Your task to perform on an android device: open chrome privacy settings Image 0: 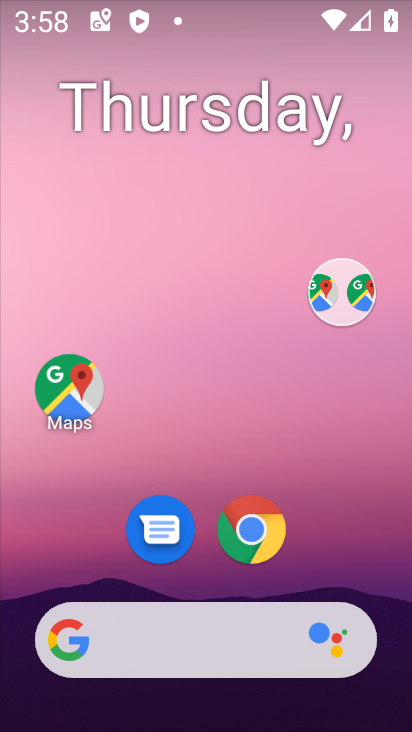
Step 0: click (399, 587)
Your task to perform on an android device: open chrome privacy settings Image 1: 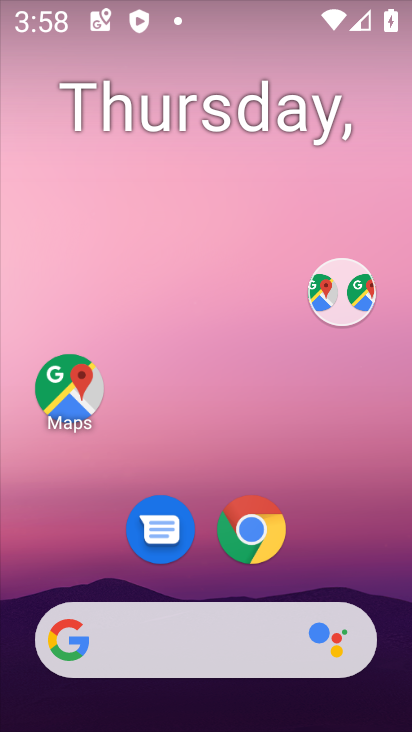
Step 1: click (243, 541)
Your task to perform on an android device: open chrome privacy settings Image 2: 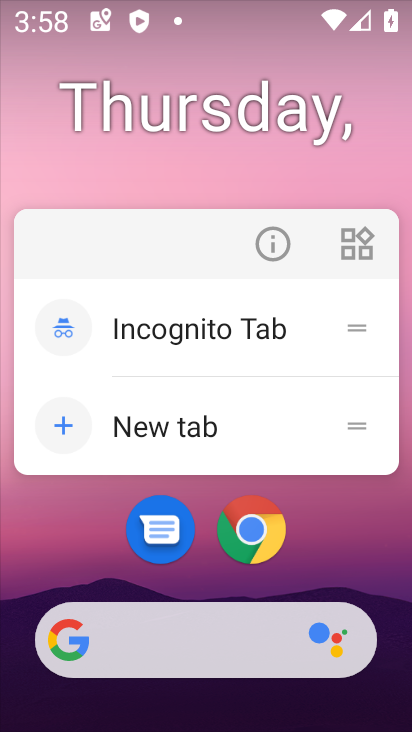
Step 2: click (243, 541)
Your task to perform on an android device: open chrome privacy settings Image 3: 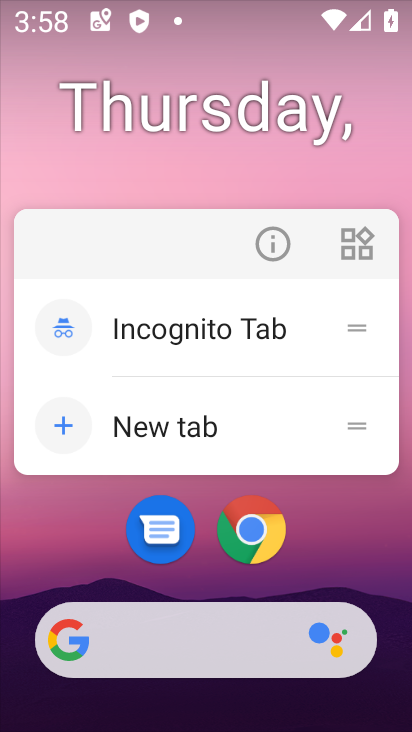
Step 3: click (243, 541)
Your task to perform on an android device: open chrome privacy settings Image 4: 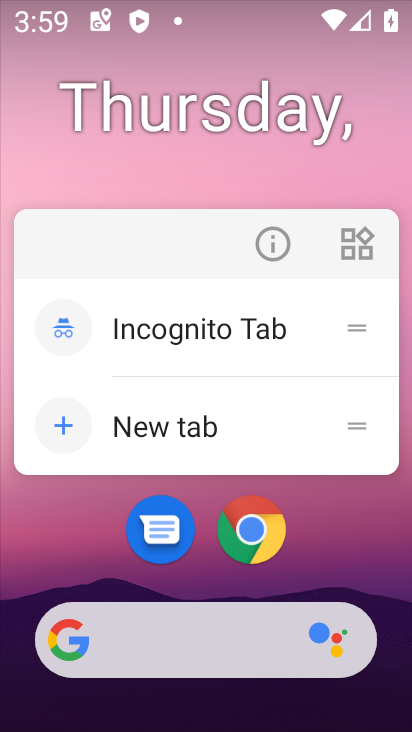
Step 4: click (243, 541)
Your task to perform on an android device: open chrome privacy settings Image 5: 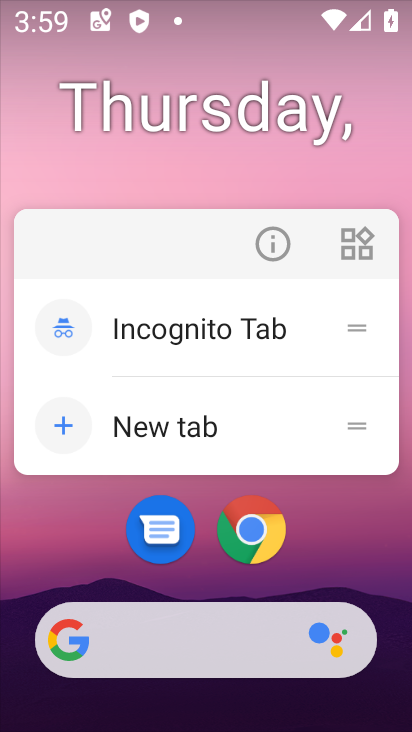
Step 5: click (243, 541)
Your task to perform on an android device: open chrome privacy settings Image 6: 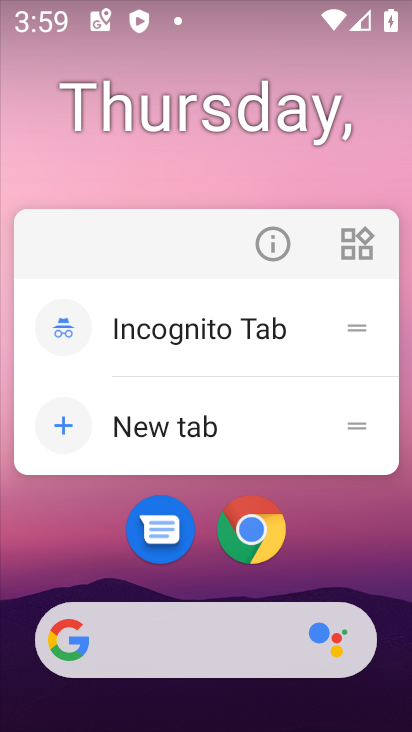
Step 6: click (243, 541)
Your task to perform on an android device: open chrome privacy settings Image 7: 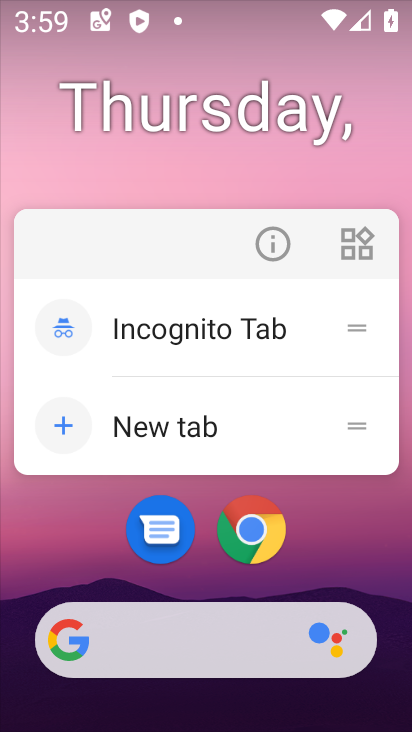
Step 7: click (243, 541)
Your task to perform on an android device: open chrome privacy settings Image 8: 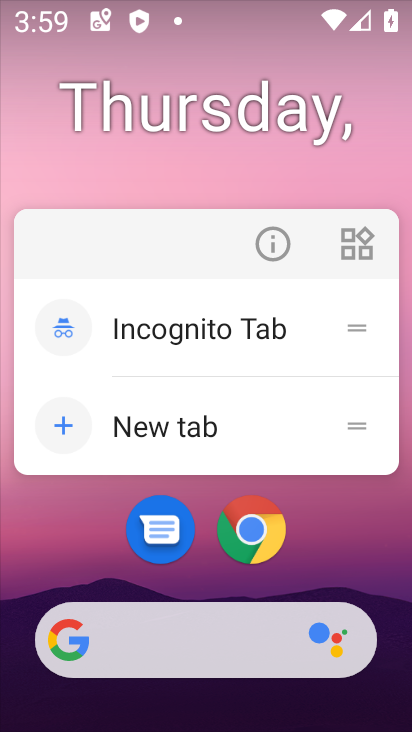
Step 8: click (245, 542)
Your task to perform on an android device: open chrome privacy settings Image 9: 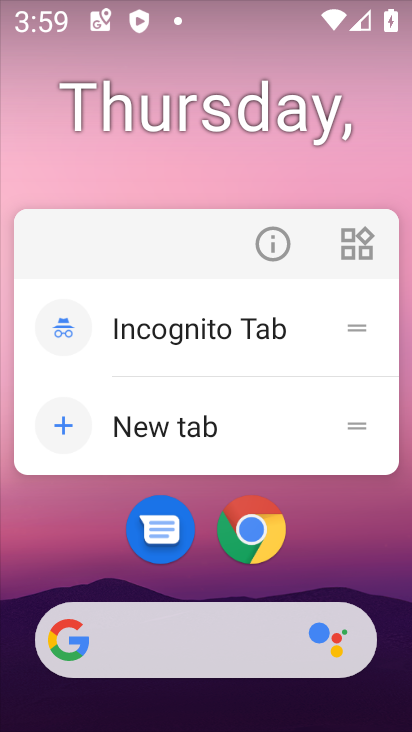
Step 9: click (245, 542)
Your task to perform on an android device: open chrome privacy settings Image 10: 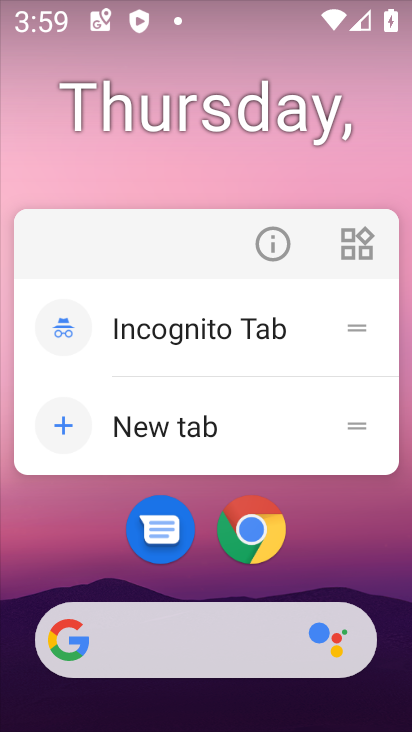
Step 10: click (245, 542)
Your task to perform on an android device: open chrome privacy settings Image 11: 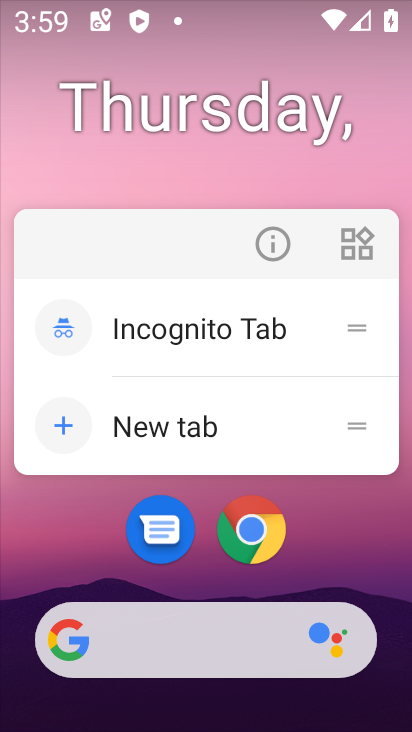
Step 11: click (245, 542)
Your task to perform on an android device: open chrome privacy settings Image 12: 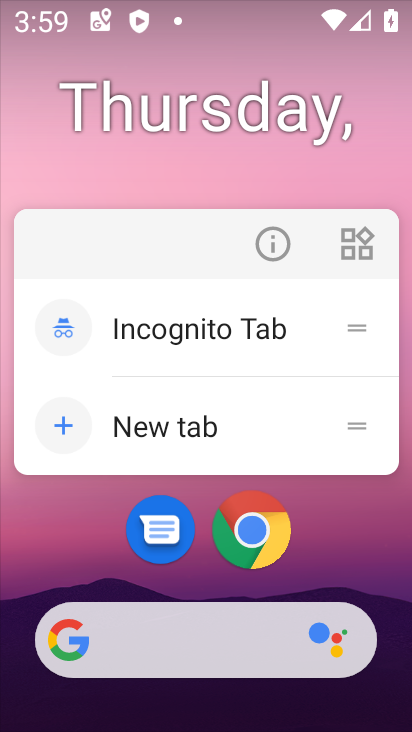
Step 12: click (245, 542)
Your task to perform on an android device: open chrome privacy settings Image 13: 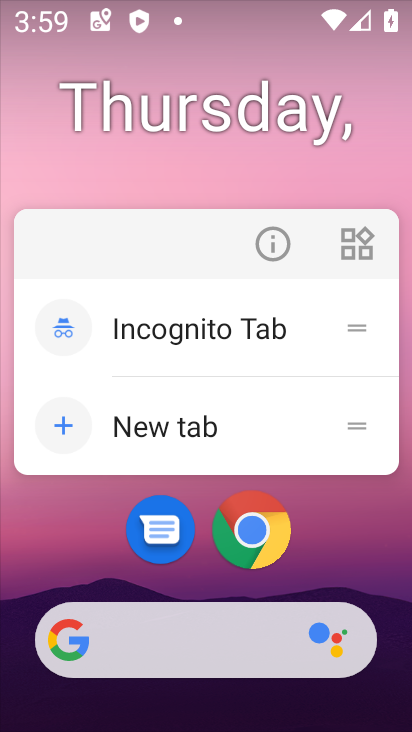
Step 13: click (245, 542)
Your task to perform on an android device: open chrome privacy settings Image 14: 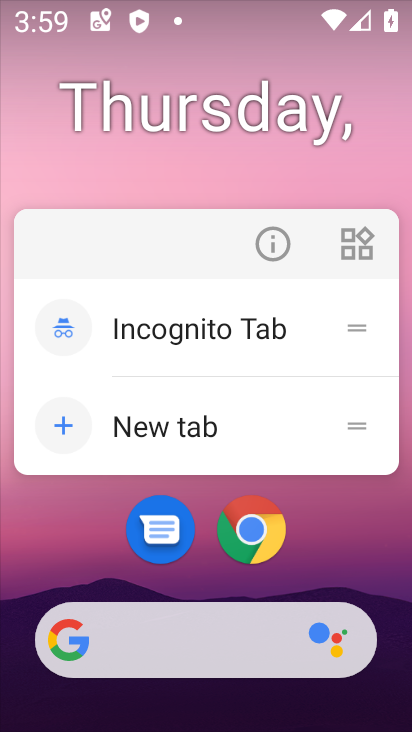
Step 14: click (244, 540)
Your task to perform on an android device: open chrome privacy settings Image 15: 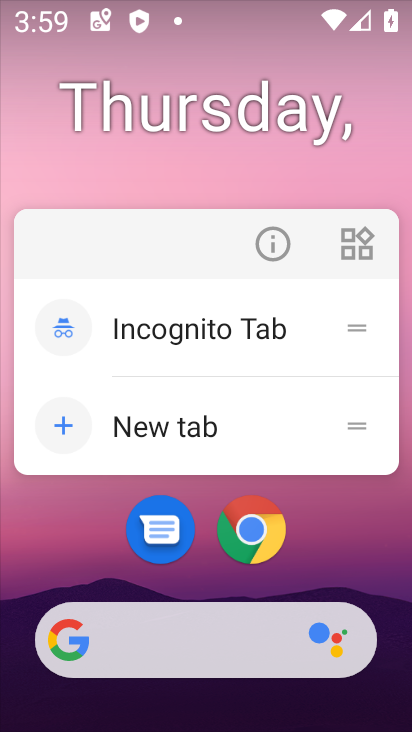
Step 15: click (244, 540)
Your task to perform on an android device: open chrome privacy settings Image 16: 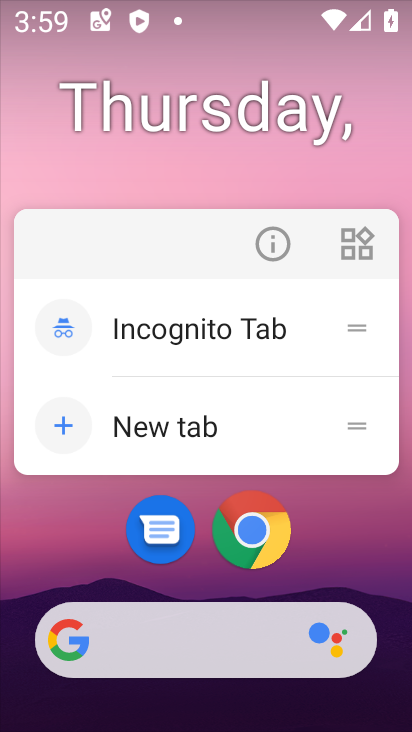
Step 16: click (244, 540)
Your task to perform on an android device: open chrome privacy settings Image 17: 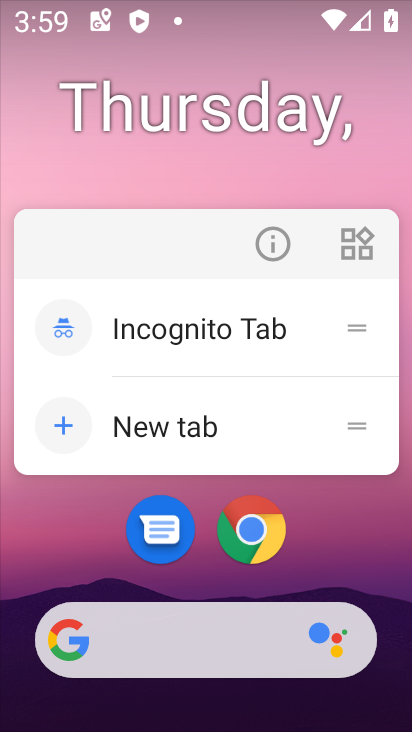
Step 17: click (244, 540)
Your task to perform on an android device: open chrome privacy settings Image 18: 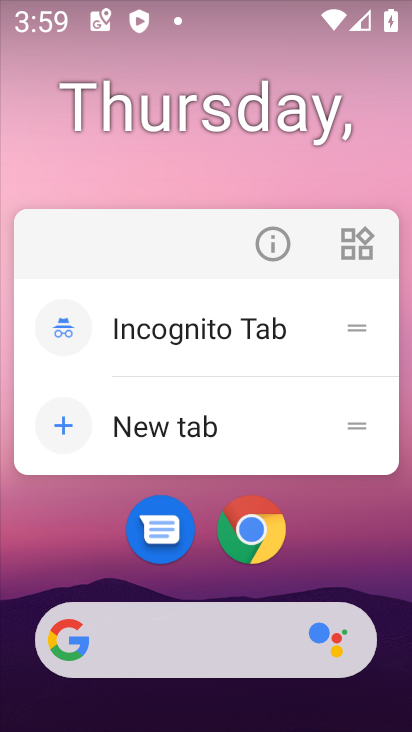
Step 18: click (244, 540)
Your task to perform on an android device: open chrome privacy settings Image 19: 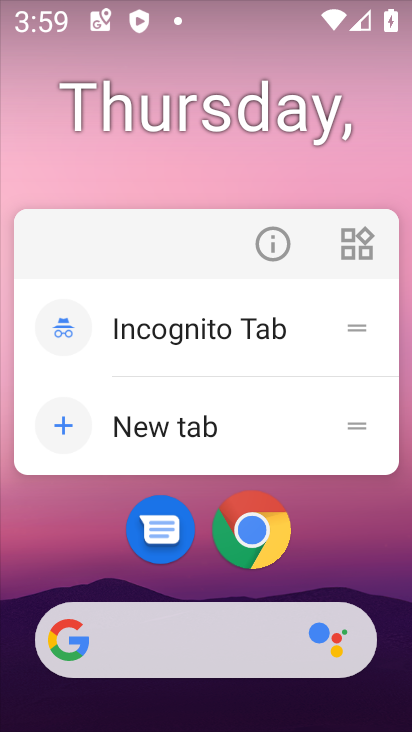
Step 19: click (244, 540)
Your task to perform on an android device: open chrome privacy settings Image 20: 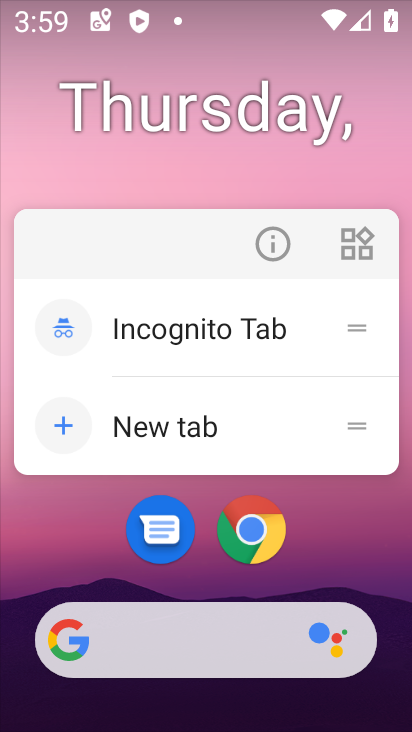
Step 20: click (244, 540)
Your task to perform on an android device: open chrome privacy settings Image 21: 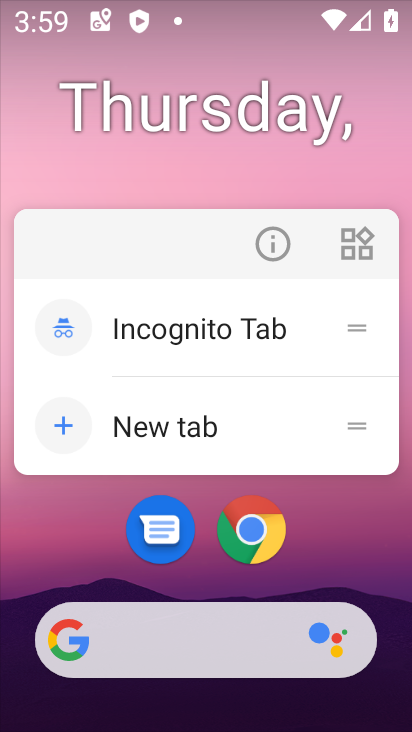
Step 21: click (244, 540)
Your task to perform on an android device: open chrome privacy settings Image 22: 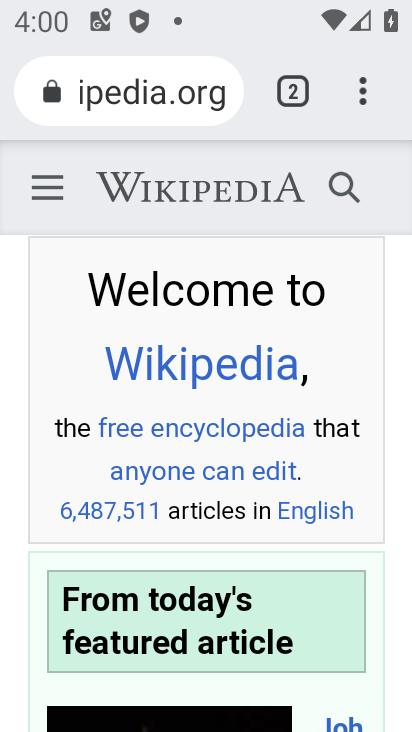
Step 22: click (366, 95)
Your task to perform on an android device: open chrome privacy settings Image 23: 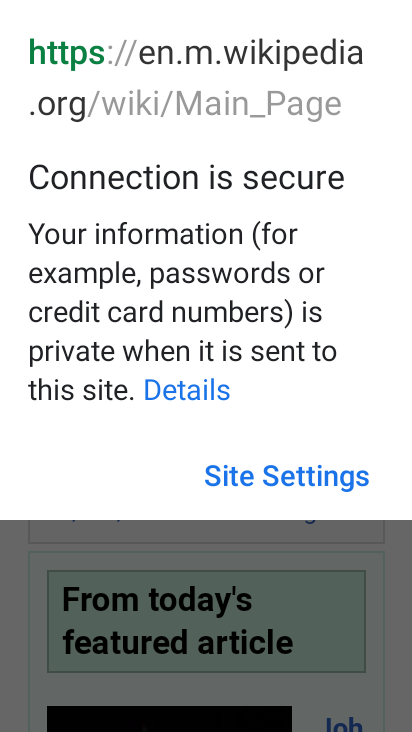
Step 23: click (269, 535)
Your task to perform on an android device: open chrome privacy settings Image 24: 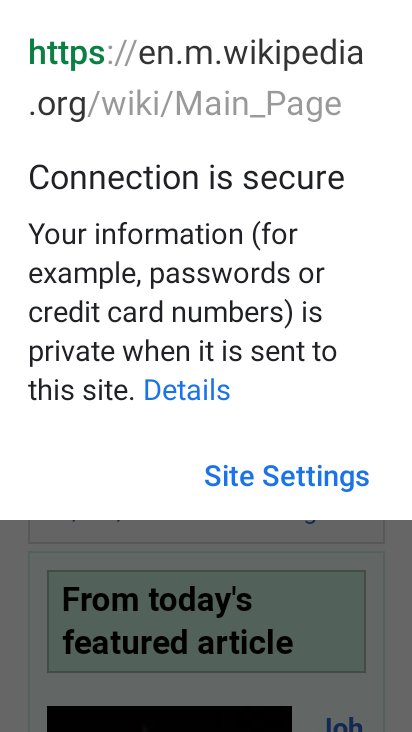
Step 24: click (269, 535)
Your task to perform on an android device: open chrome privacy settings Image 25: 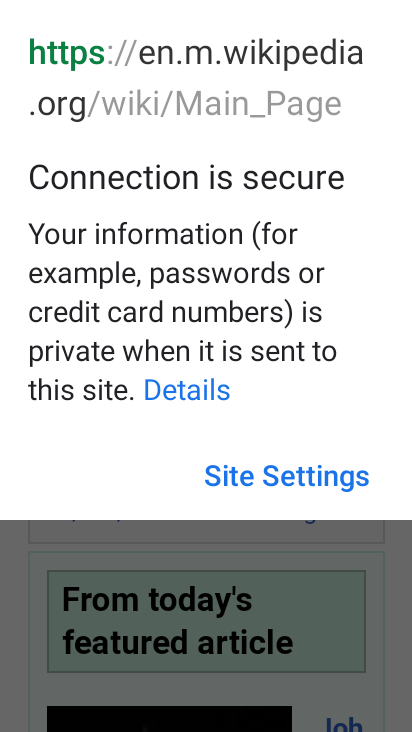
Step 25: click (336, 563)
Your task to perform on an android device: open chrome privacy settings Image 26: 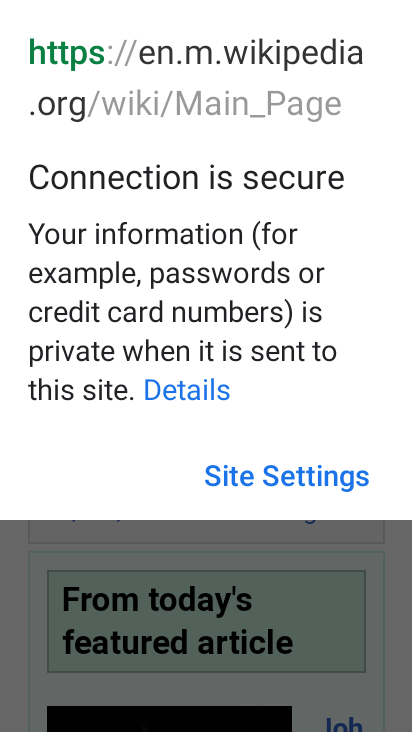
Step 26: click (336, 563)
Your task to perform on an android device: open chrome privacy settings Image 27: 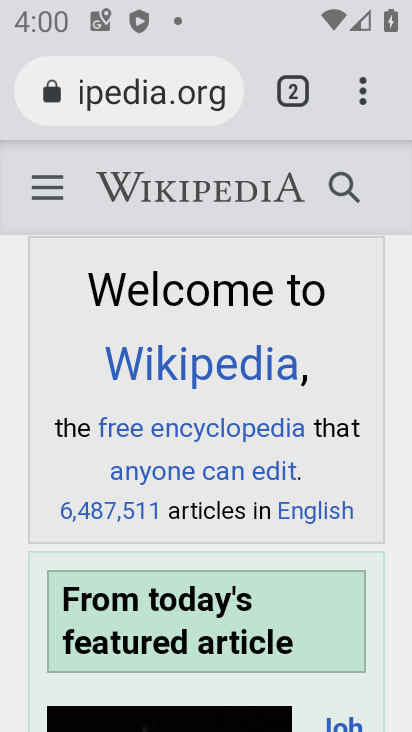
Step 27: click (336, 563)
Your task to perform on an android device: open chrome privacy settings Image 28: 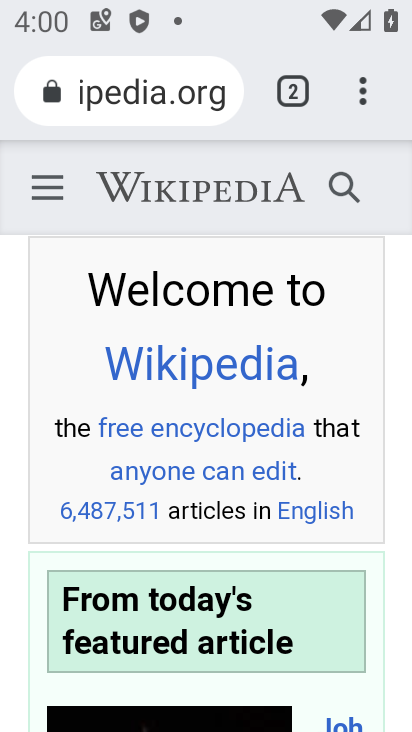
Step 28: click (366, 84)
Your task to perform on an android device: open chrome privacy settings Image 29: 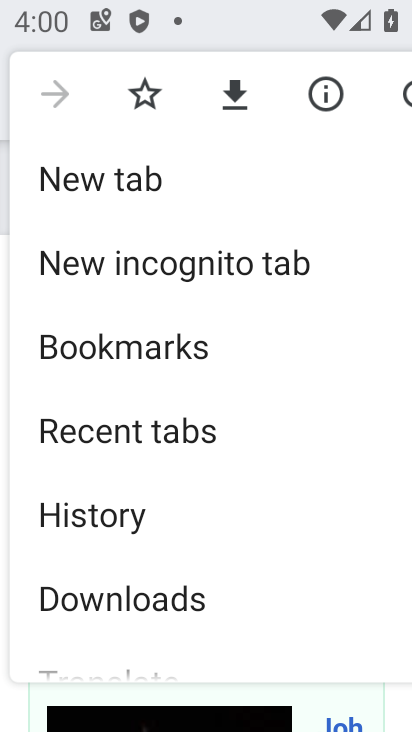
Step 29: drag from (70, 573) to (60, 218)
Your task to perform on an android device: open chrome privacy settings Image 30: 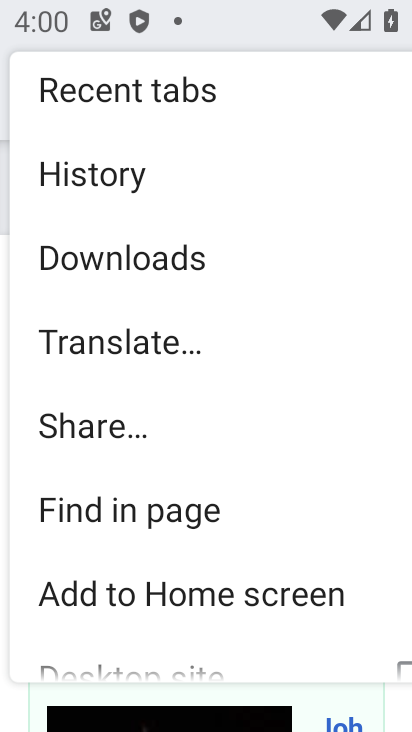
Step 30: drag from (136, 530) to (82, 132)
Your task to perform on an android device: open chrome privacy settings Image 31: 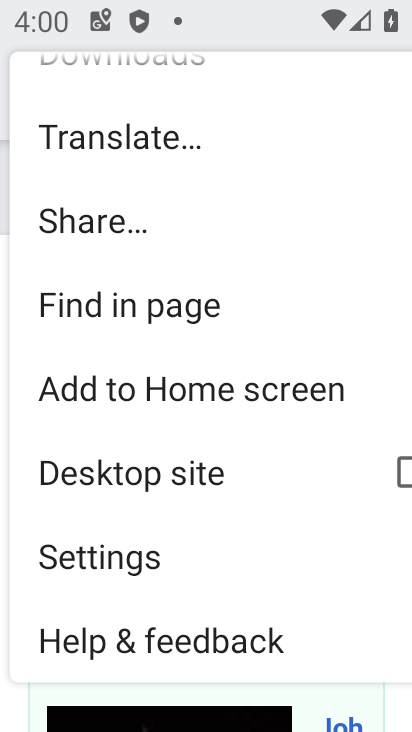
Step 31: click (80, 559)
Your task to perform on an android device: open chrome privacy settings Image 32: 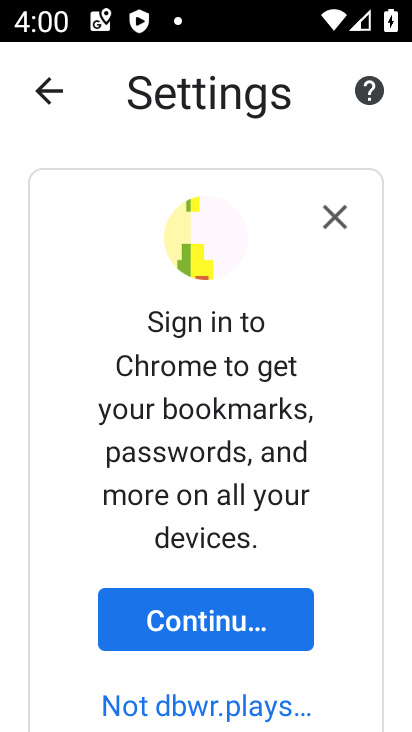
Step 32: drag from (80, 559) to (29, 183)
Your task to perform on an android device: open chrome privacy settings Image 33: 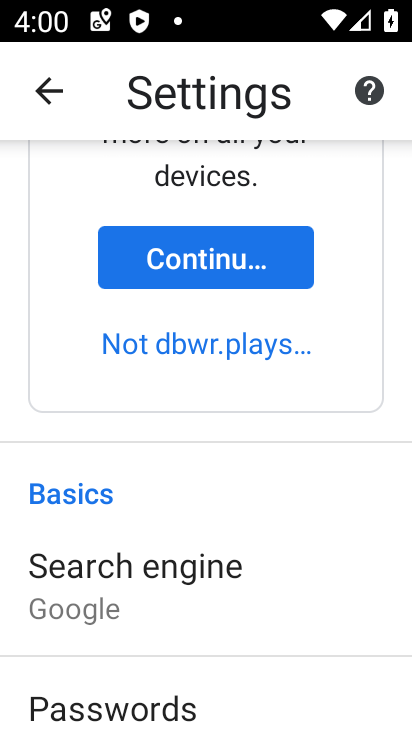
Step 33: drag from (198, 443) to (198, 12)
Your task to perform on an android device: open chrome privacy settings Image 34: 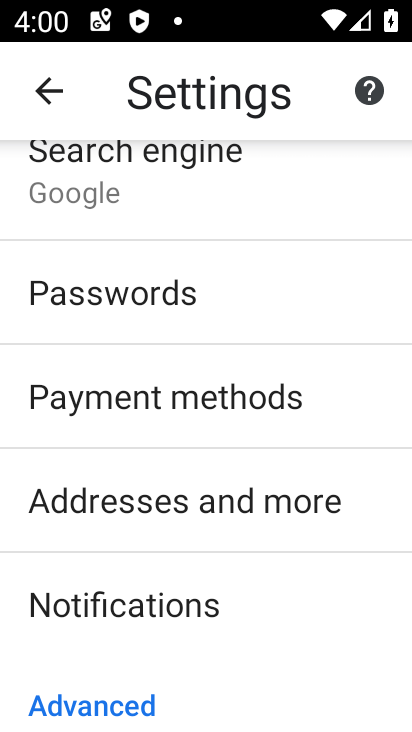
Step 34: drag from (215, 513) to (185, 184)
Your task to perform on an android device: open chrome privacy settings Image 35: 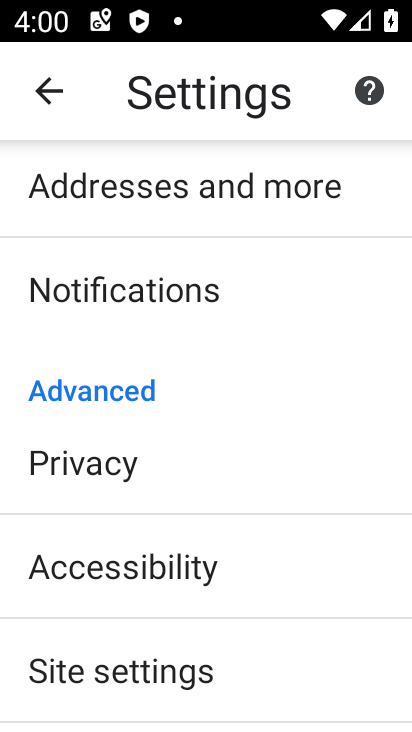
Step 35: click (33, 457)
Your task to perform on an android device: open chrome privacy settings Image 36: 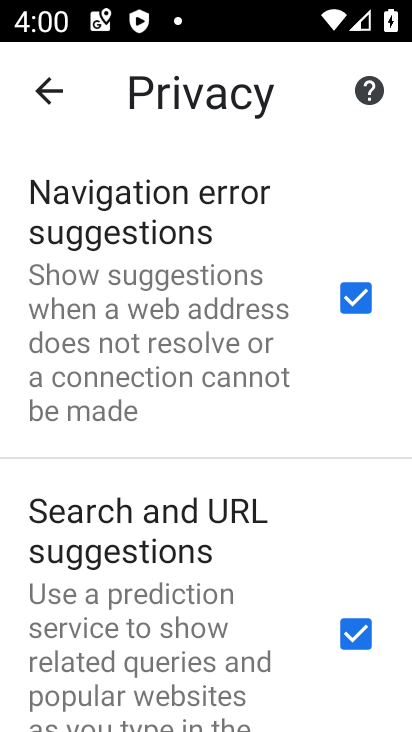
Step 36: task complete